Your task to perform on an android device: Open Chrome and go to settings Image 0: 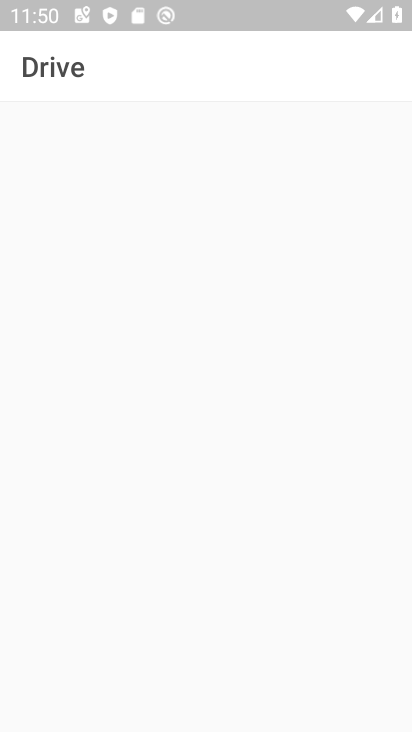
Step 0: press home button
Your task to perform on an android device: Open Chrome and go to settings Image 1: 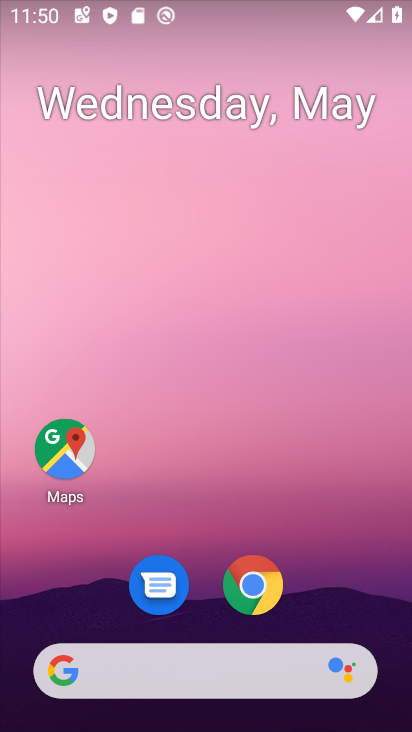
Step 1: click (253, 578)
Your task to perform on an android device: Open Chrome and go to settings Image 2: 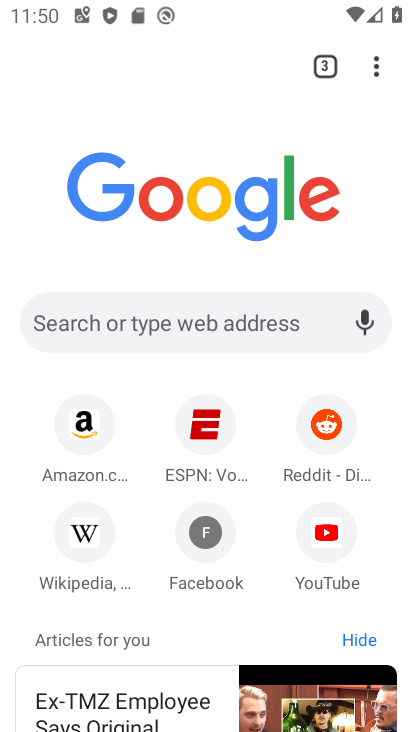
Step 2: click (377, 68)
Your task to perform on an android device: Open Chrome and go to settings Image 3: 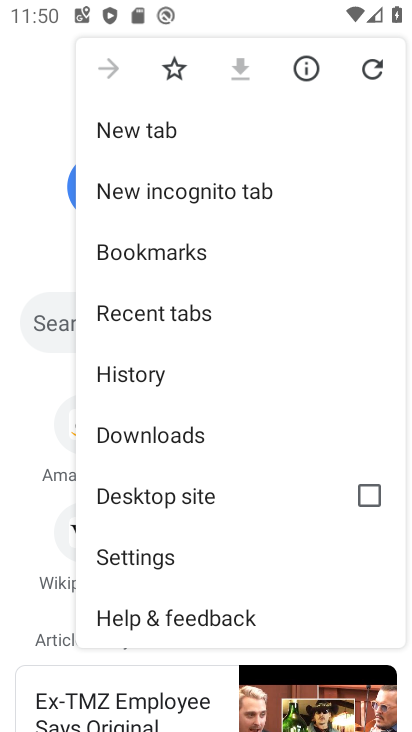
Step 3: click (152, 548)
Your task to perform on an android device: Open Chrome and go to settings Image 4: 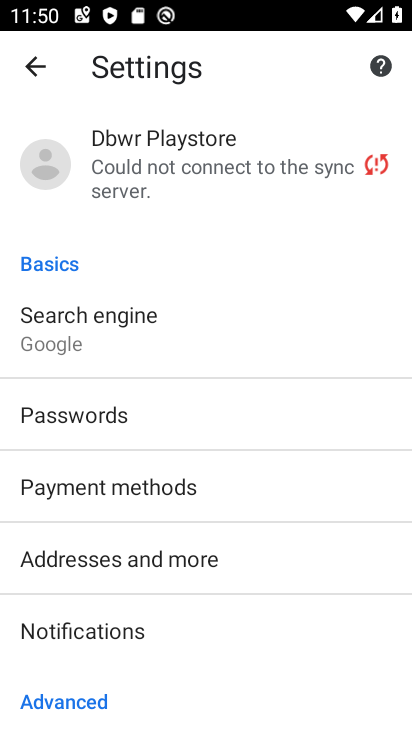
Step 4: task complete